Your task to perform on an android device: Go to battery settings Image 0: 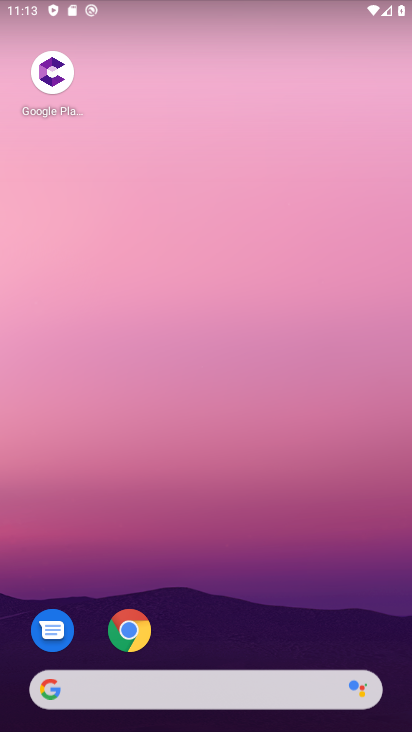
Step 0: drag from (212, 203) to (250, 443)
Your task to perform on an android device: Go to battery settings Image 1: 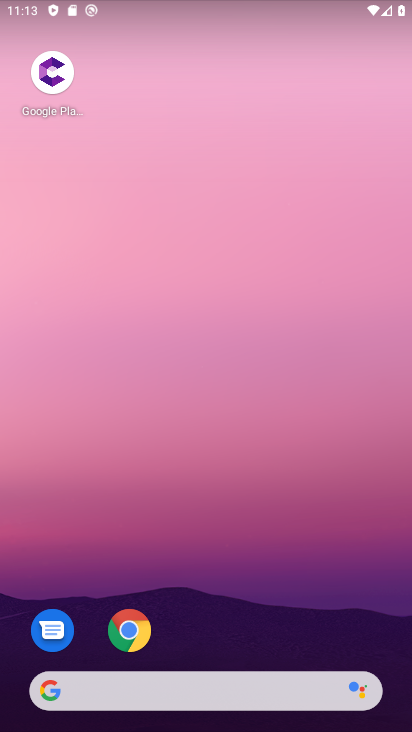
Step 1: drag from (229, 5) to (263, 572)
Your task to perform on an android device: Go to battery settings Image 2: 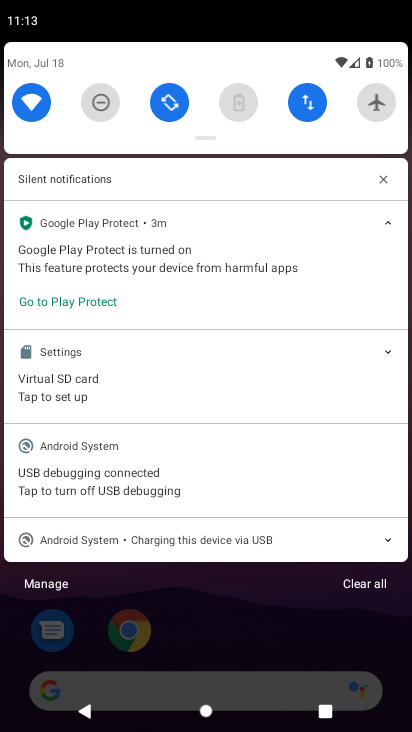
Step 2: click (241, 111)
Your task to perform on an android device: Go to battery settings Image 3: 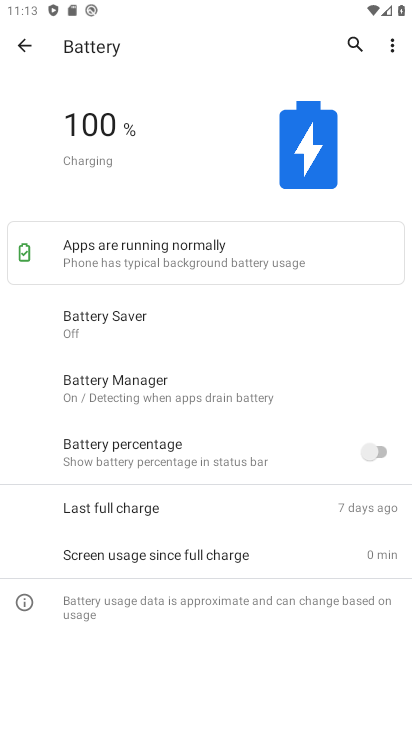
Step 3: task complete